Your task to perform on an android device: clear history in the chrome app Image 0: 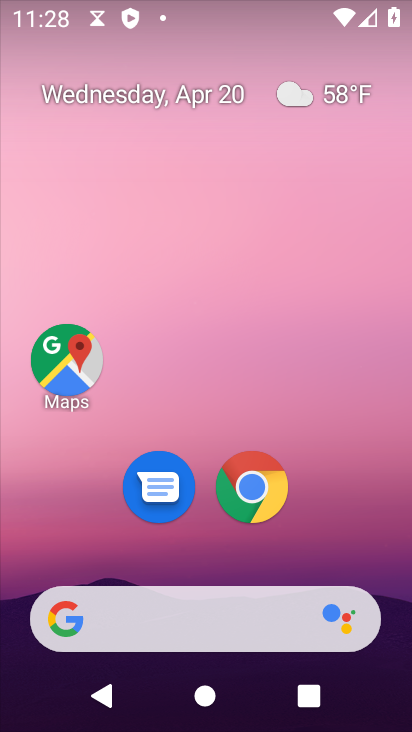
Step 0: drag from (330, 488) to (242, 29)
Your task to perform on an android device: clear history in the chrome app Image 1: 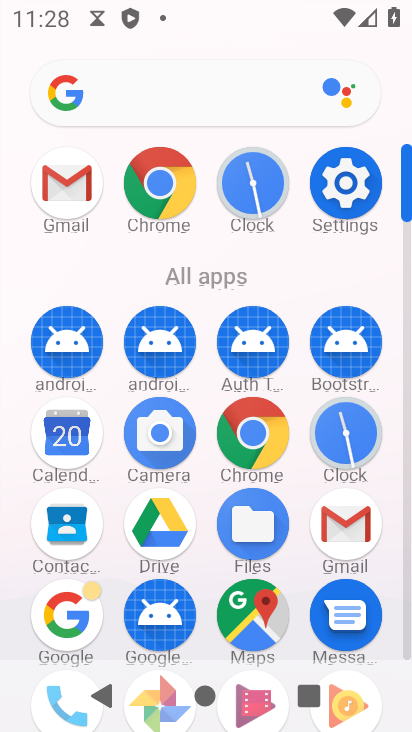
Step 1: drag from (11, 457) to (17, 240)
Your task to perform on an android device: clear history in the chrome app Image 2: 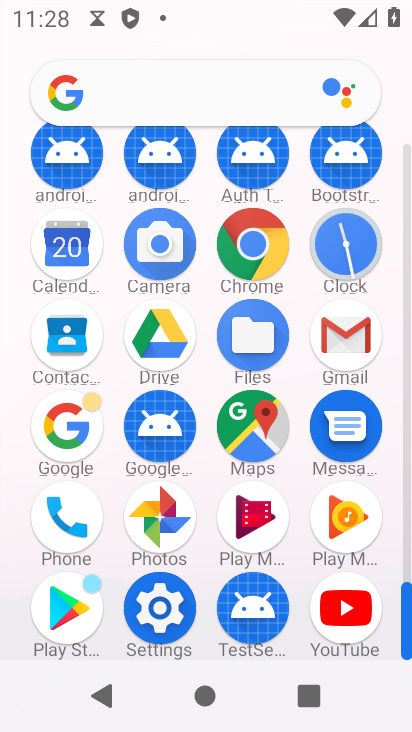
Step 2: click (254, 247)
Your task to perform on an android device: clear history in the chrome app Image 3: 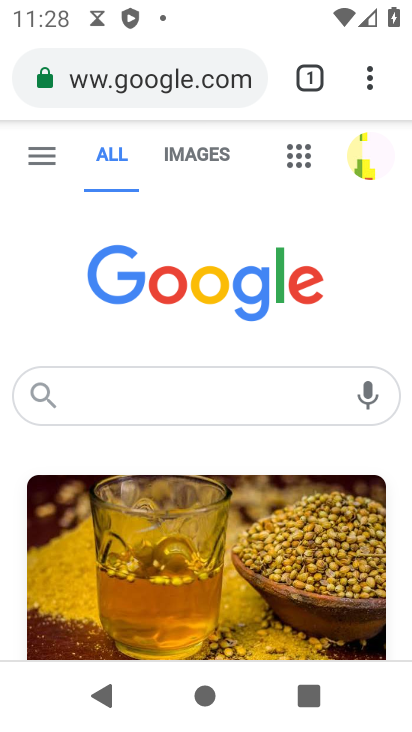
Step 3: click (371, 74)
Your task to perform on an android device: clear history in the chrome app Image 4: 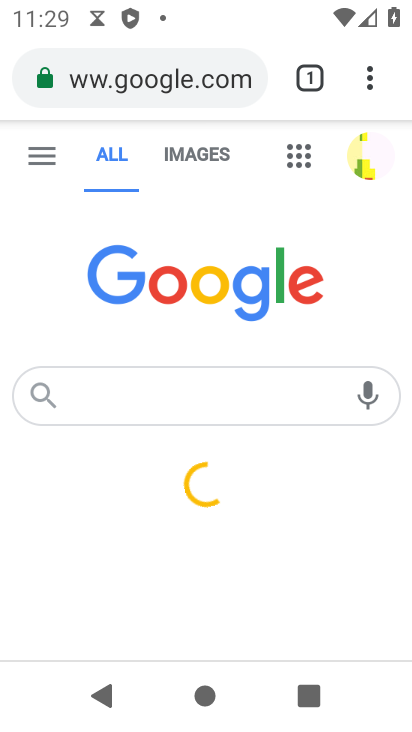
Step 4: drag from (365, 77) to (120, 437)
Your task to perform on an android device: clear history in the chrome app Image 5: 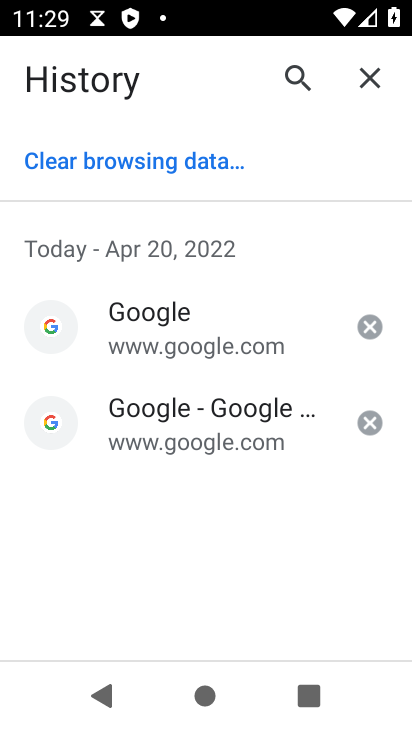
Step 5: click (137, 157)
Your task to perform on an android device: clear history in the chrome app Image 6: 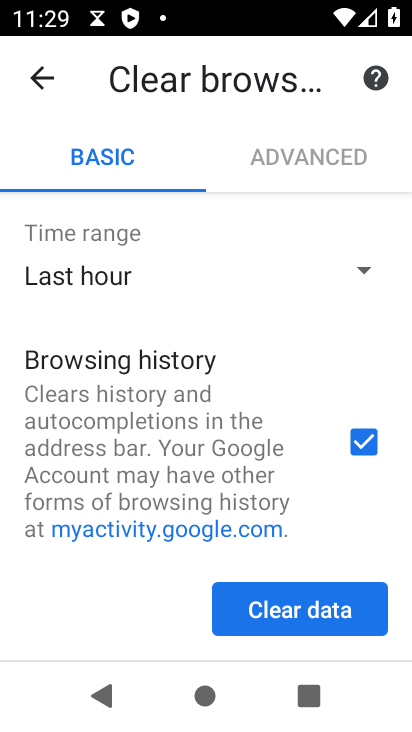
Step 6: click (297, 607)
Your task to perform on an android device: clear history in the chrome app Image 7: 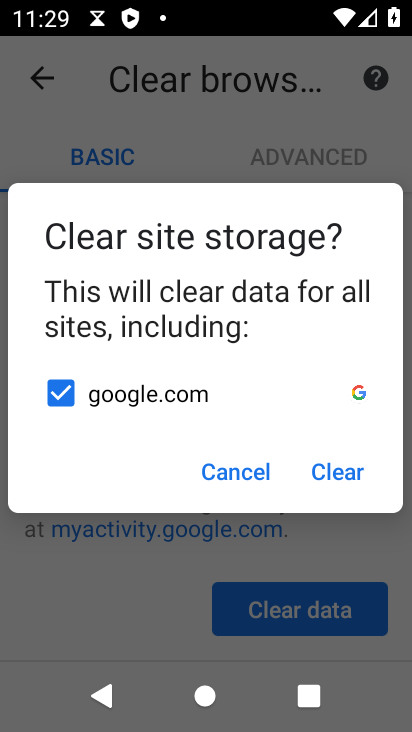
Step 7: click (311, 469)
Your task to perform on an android device: clear history in the chrome app Image 8: 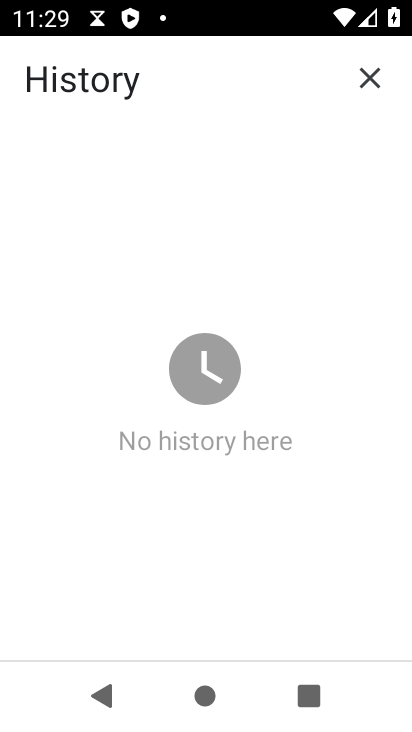
Step 8: task complete